Your task to perform on an android device: delete browsing data in the chrome app Image 0: 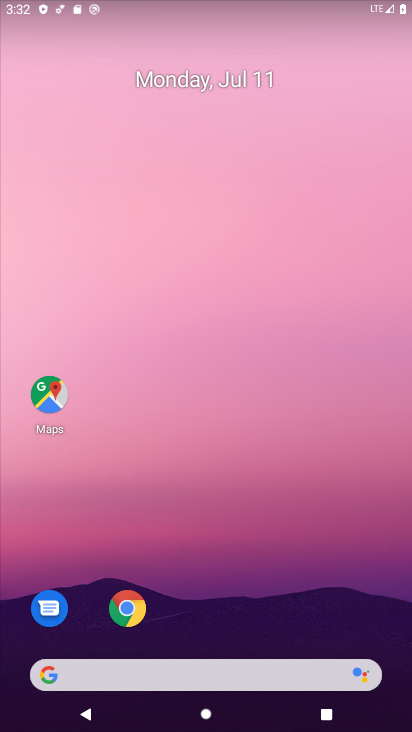
Step 0: drag from (225, 650) to (101, 32)
Your task to perform on an android device: delete browsing data in the chrome app Image 1: 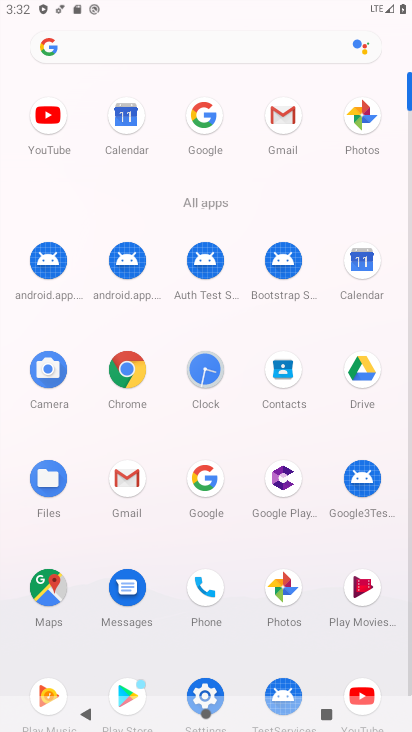
Step 1: click (128, 372)
Your task to perform on an android device: delete browsing data in the chrome app Image 2: 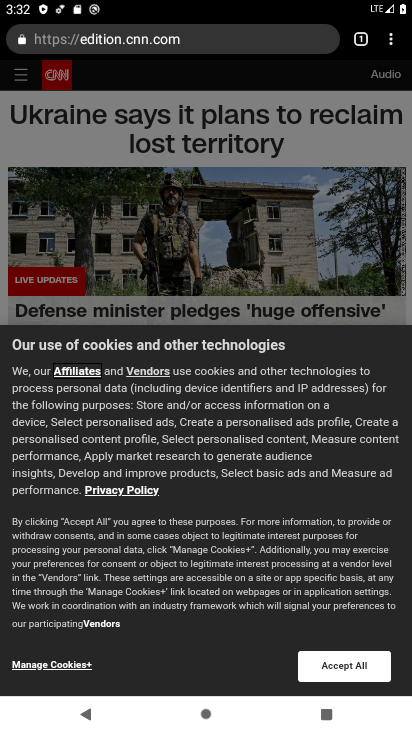
Step 2: click (385, 42)
Your task to perform on an android device: delete browsing data in the chrome app Image 3: 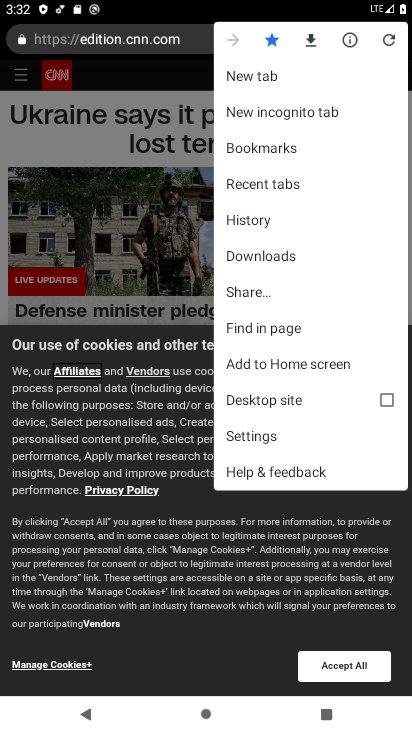
Step 3: click (275, 144)
Your task to perform on an android device: delete browsing data in the chrome app Image 4: 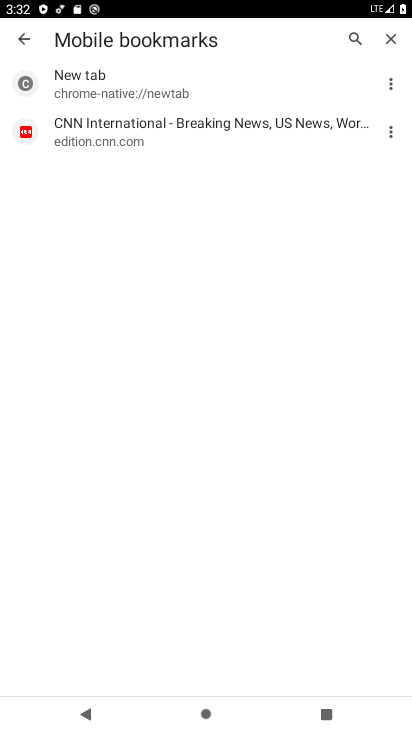
Step 4: click (20, 42)
Your task to perform on an android device: delete browsing data in the chrome app Image 5: 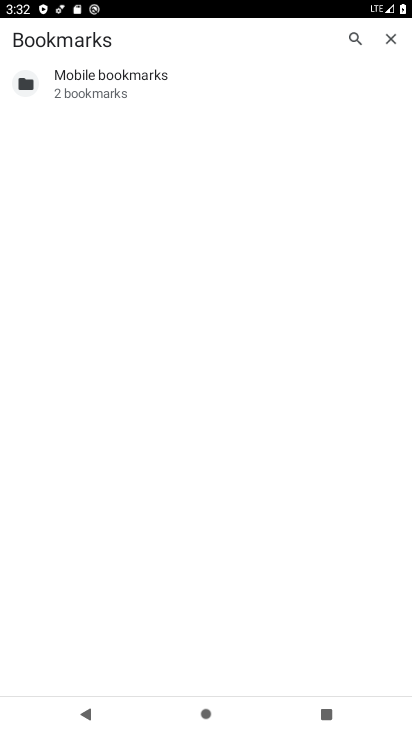
Step 5: click (383, 43)
Your task to perform on an android device: delete browsing data in the chrome app Image 6: 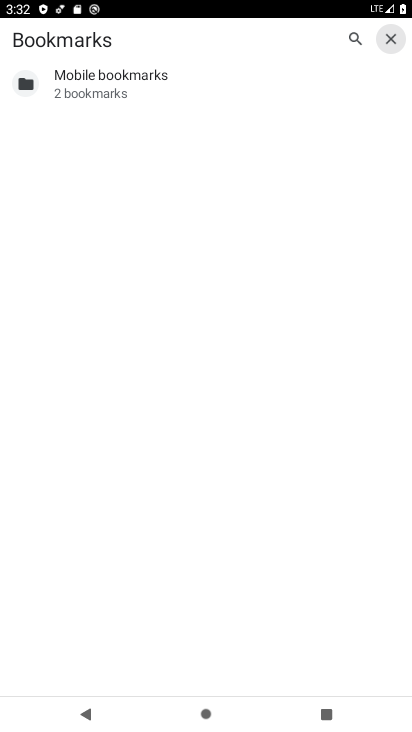
Step 6: click (383, 43)
Your task to perform on an android device: delete browsing data in the chrome app Image 7: 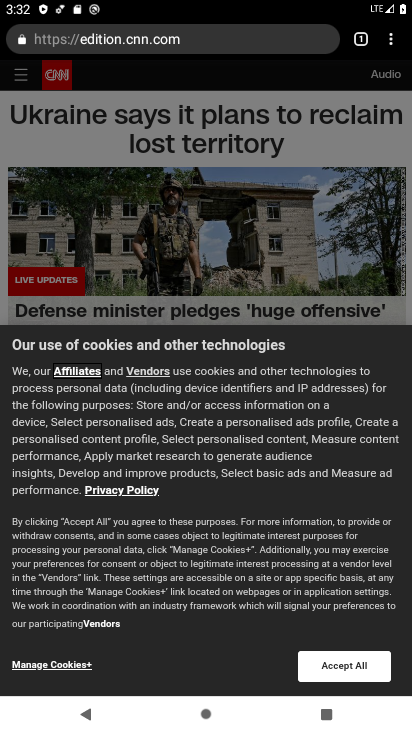
Step 7: click (383, 43)
Your task to perform on an android device: delete browsing data in the chrome app Image 8: 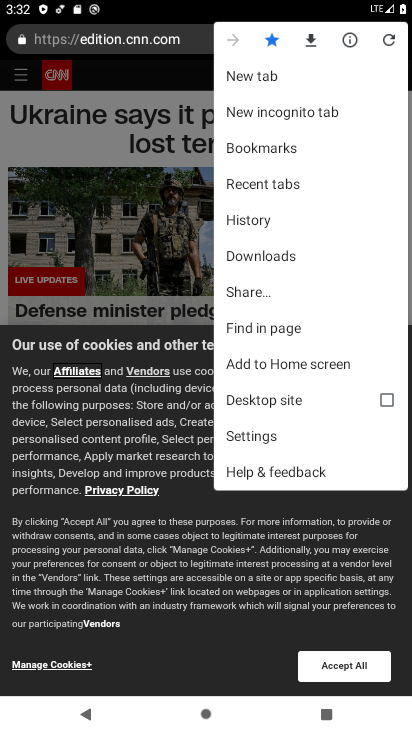
Step 8: click (243, 205)
Your task to perform on an android device: delete browsing data in the chrome app Image 9: 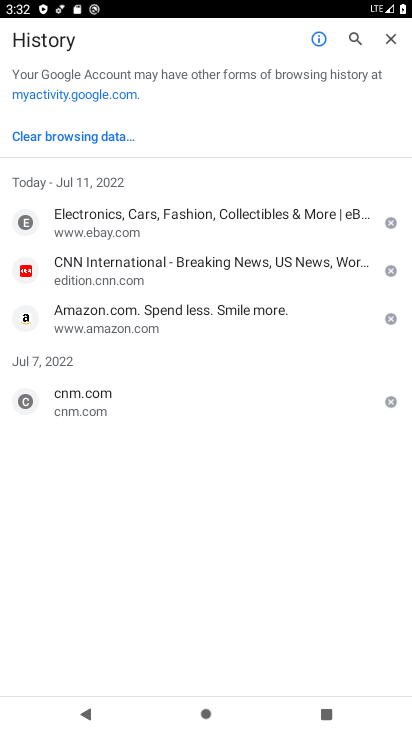
Step 9: click (48, 137)
Your task to perform on an android device: delete browsing data in the chrome app Image 10: 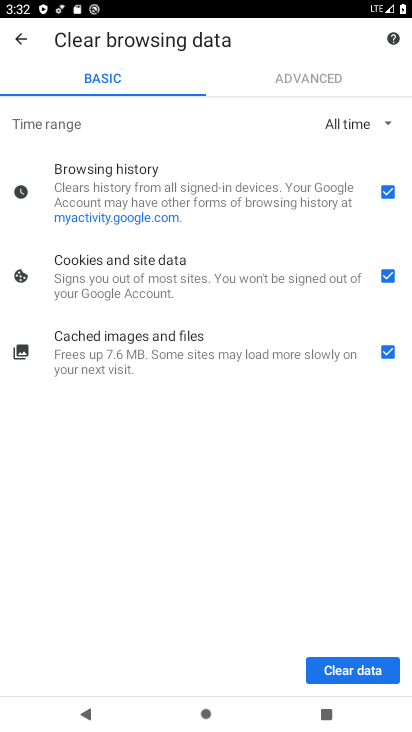
Step 10: click (352, 675)
Your task to perform on an android device: delete browsing data in the chrome app Image 11: 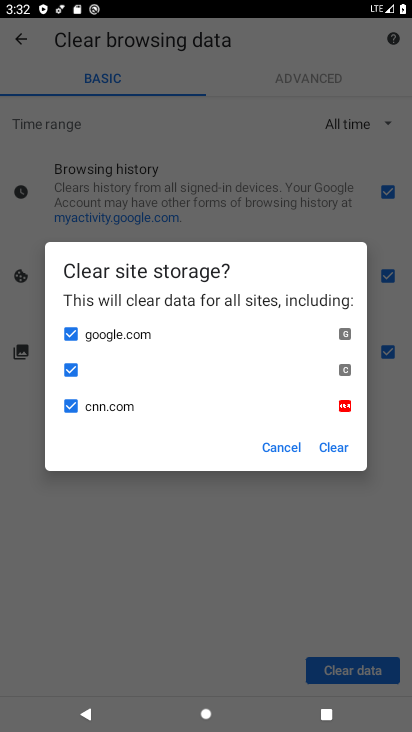
Step 11: click (336, 450)
Your task to perform on an android device: delete browsing data in the chrome app Image 12: 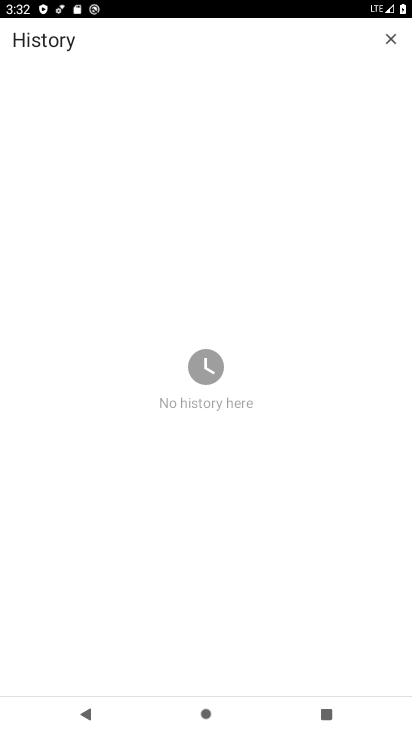
Step 12: task complete